Your task to perform on an android device: open a bookmark in the chrome app Image 0: 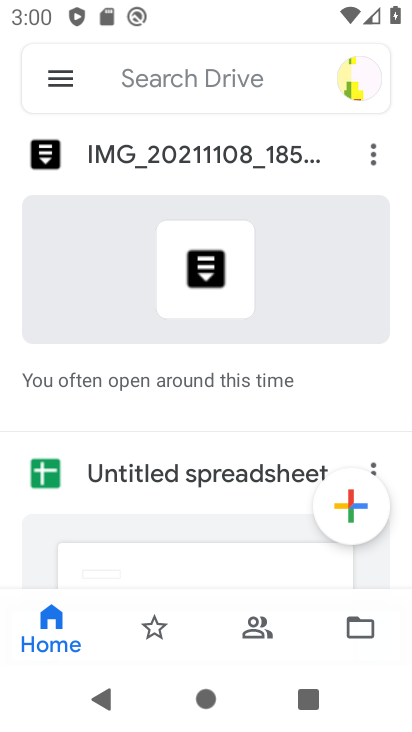
Step 0: press home button
Your task to perform on an android device: open a bookmark in the chrome app Image 1: 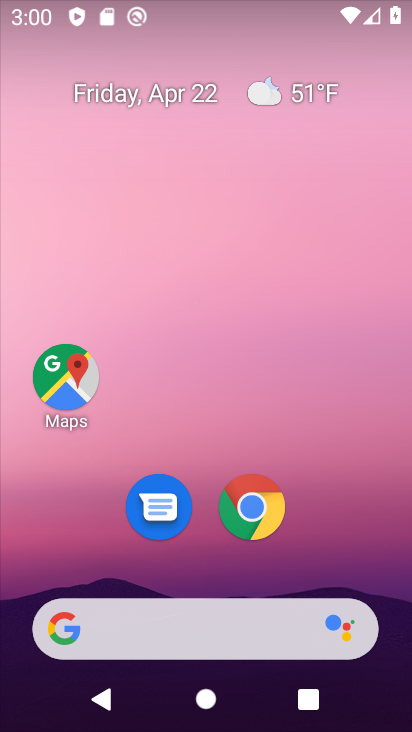
Step 1: drag from (217, 576) to (211, 36)
Your task to perform on an android device: open a bookmark in the chrome app Image 2: 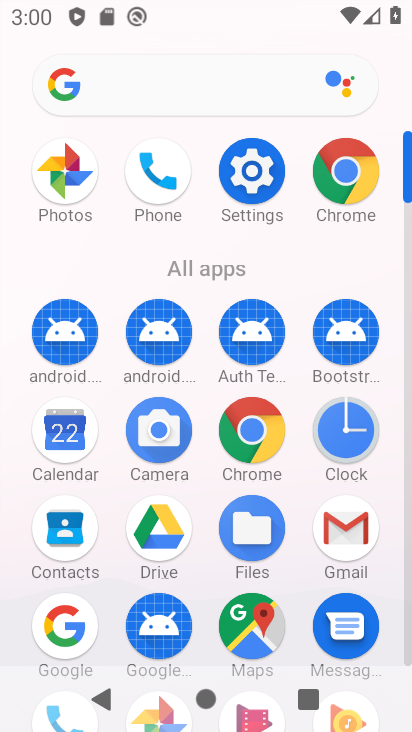
Step 2: click (358, 183)
Your task to perform on an android device: open a bookmark in the chrome app Image 3: 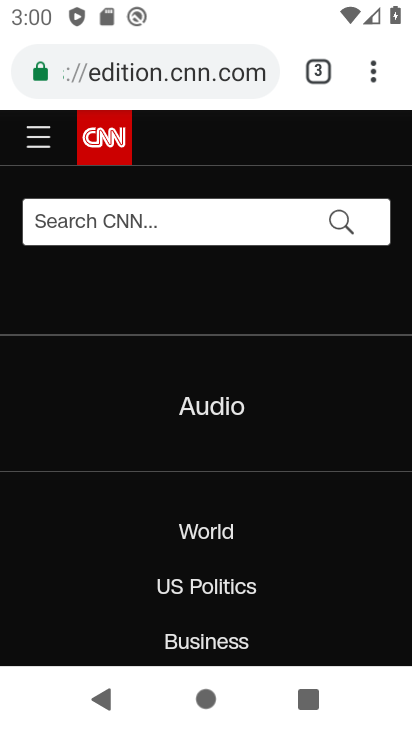
Step 3: task complete